Your task to perform on an android device: move a message to another label in the gmail app Image 0: 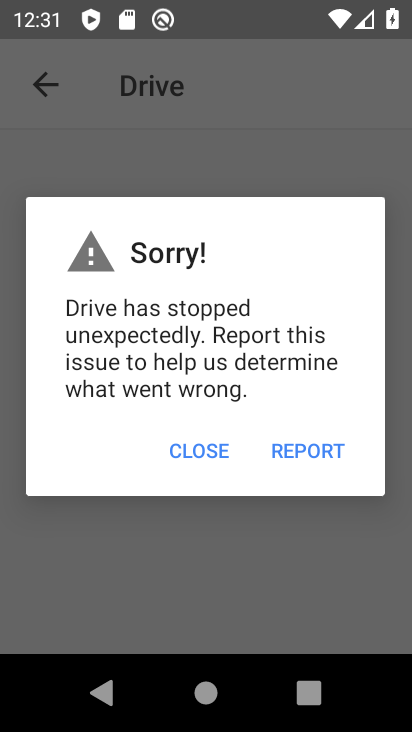
Step 0: press home button
Your task to perform on an android device: move a message to another label in the gmail app Image 1: 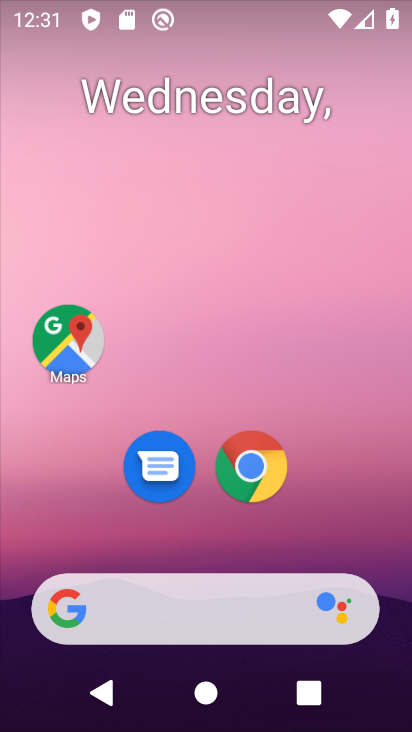
Step 1: drag from (152, 710) to (206, 162)
Your task to perform on an android device: move a message to another label in the gmail app Image 2: 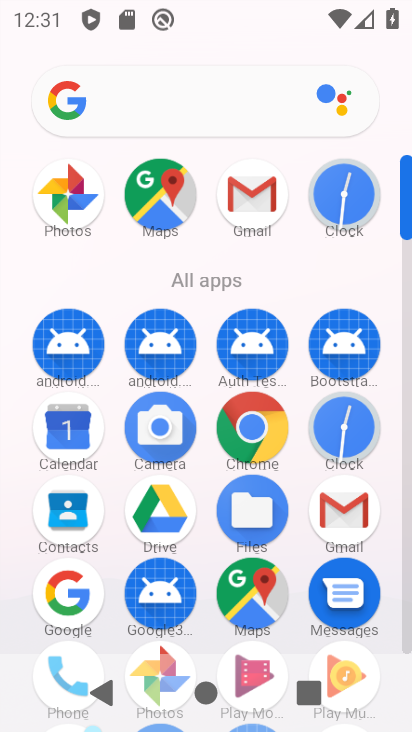
Step 2: click (252, 193)
Your task to perform on an android device: move a message to another label in the gmail app Image 3: 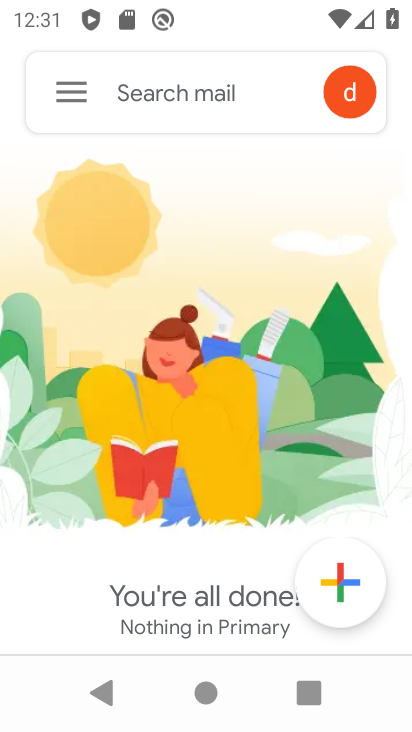
Step 3: click (52, 89)
Your task to perform on an android device: move a message to another label in the gmail app Image 4: 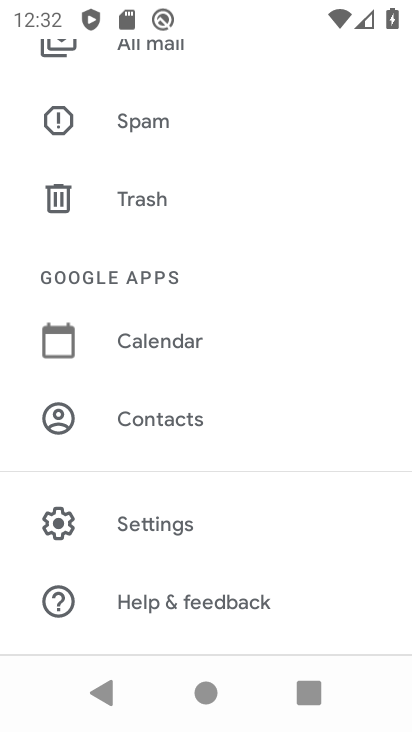
Step 4: drag from (237, 123) to (234, 473)
Your task to perform on an android device: move a message to another label in the gmail app Image 5: 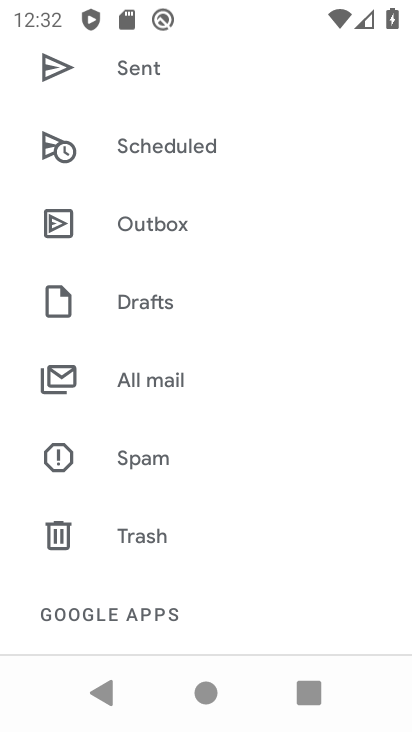
Step 5: click (170, 380)
Your task to perform on an android device: move a message to another label in the gmail app Image 6: 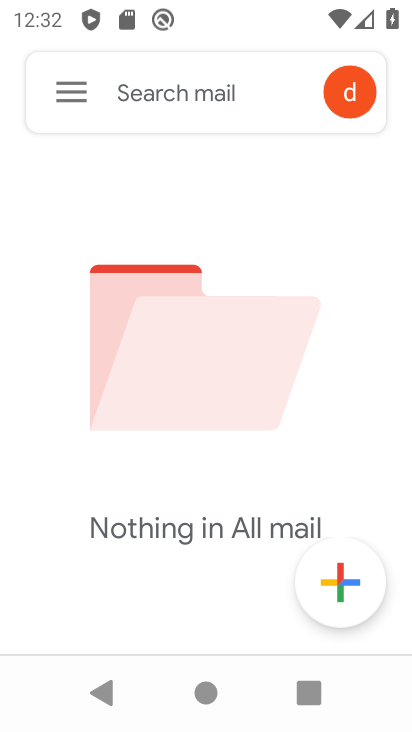
Step 6: click (69, 97)
Your task to perform on an android device: move a message to another label in the gmail app Image 7: 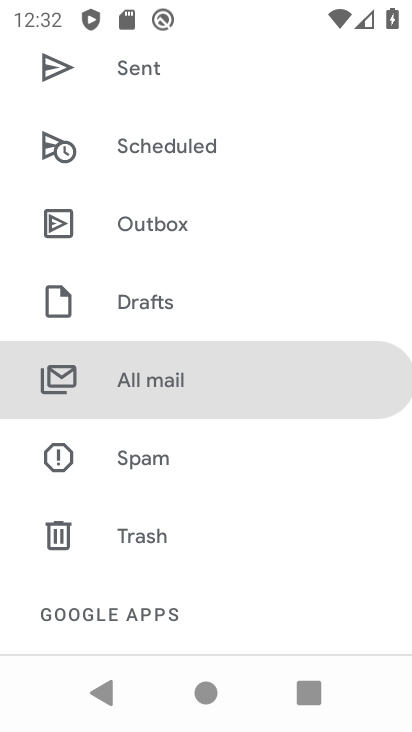
Step 7: drag from (245, 97) to (235, 649)
Your task to perform on an android device: move a message to another label in the gmail app Image 8: 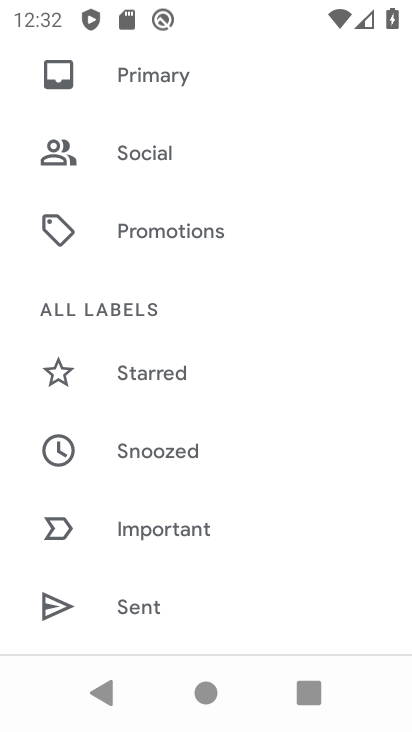
Step 8: drag from (245, 129) to (232, 467)
Your task to perform on an android device: move a message to another label in the gmail app Image 9: 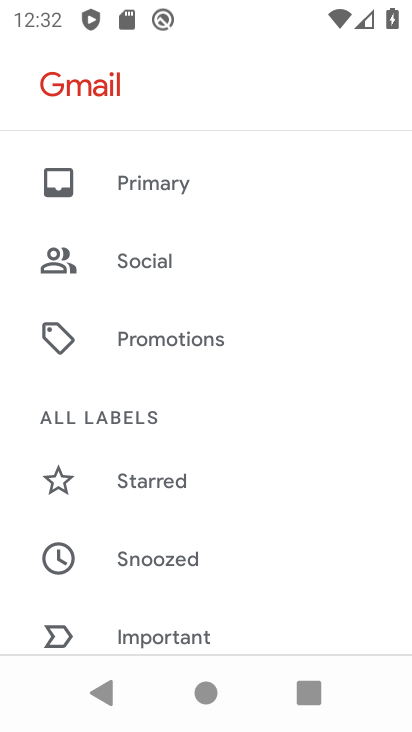
Step 9: click (183, 94)
Your task to perform on an android device: move a message to another label in the gmail app Image 10: 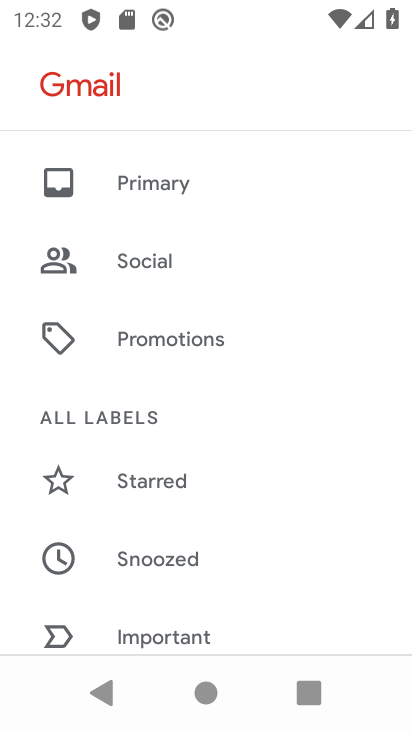
Step 10: click (189, 194)
Your task to perform on an android device: move a message to another label in the gmail app Image 11: 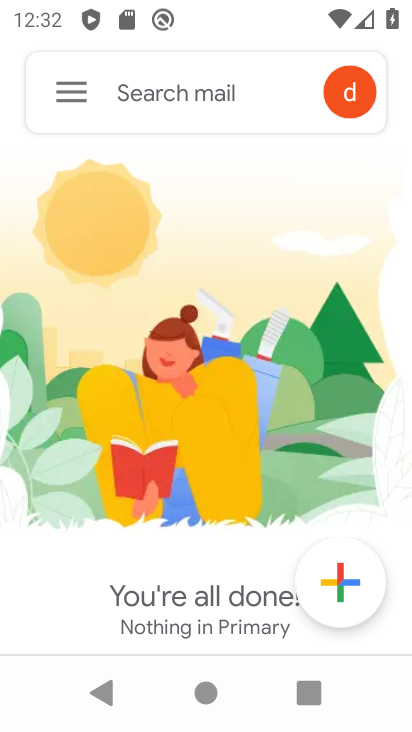
Step 11: task complete